Your task to perform on an android device: Go to sound settings Image 0: 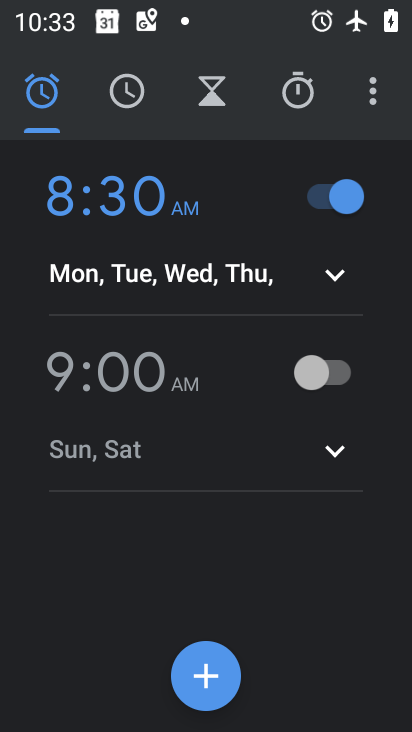
Step 0: press home button
Your task to perform on an android device: Go to sound settings Image 1: 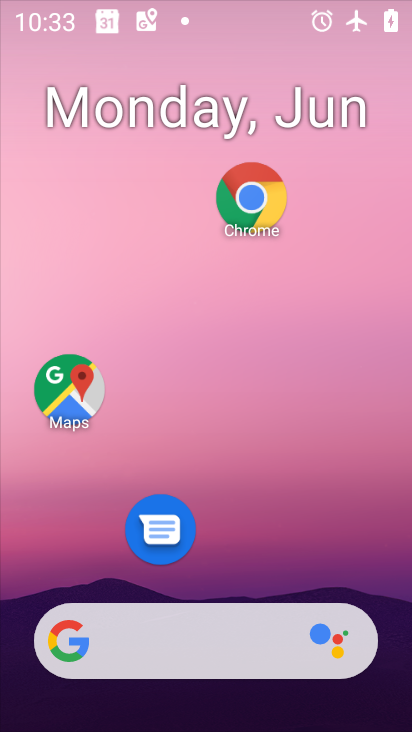
Step 1: drag from (211, 563) to (202, 190)
Your task to perform on an android device: Go to sound settings Image 2: 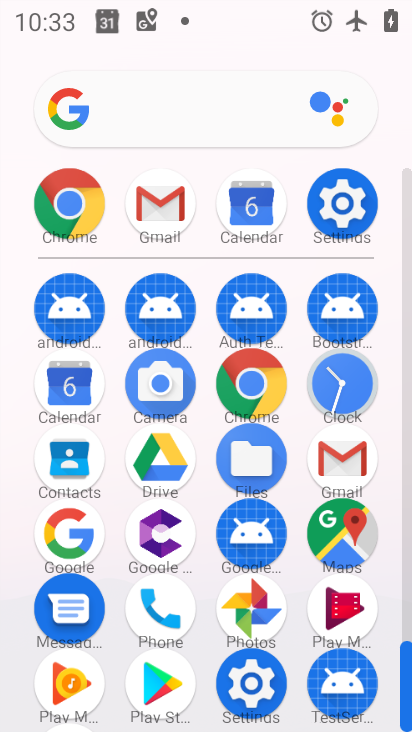
Step 2: click (334, 215)
Your task to perform on an android device: Go to sound settings Image 3: 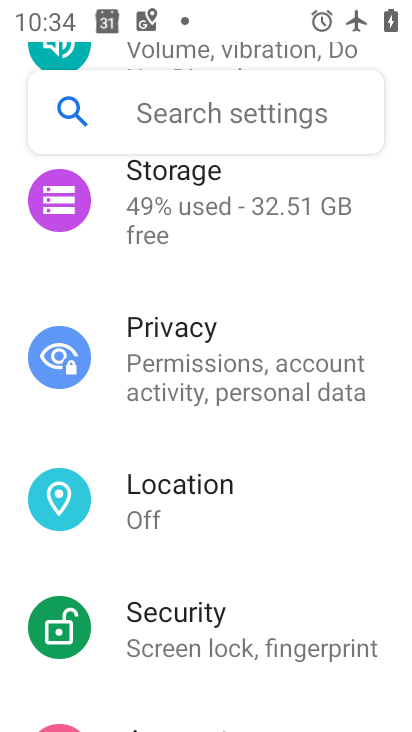
Step 3: drag from (201, 238) to (199, 577)
Your task to perform on an android device: Go to sound settings Image 4: 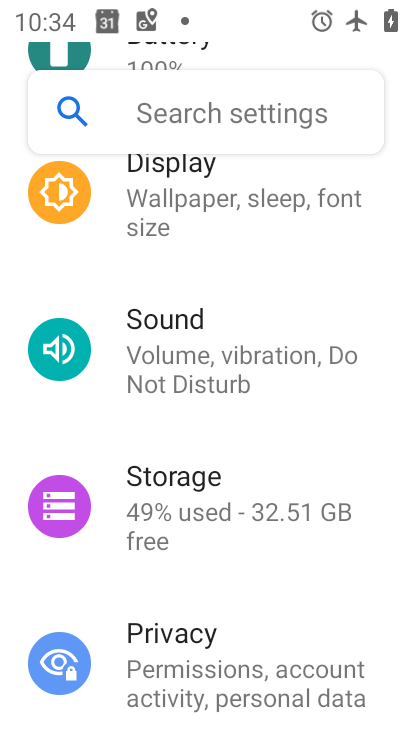
Step 4: click (199, 342)
Your task to perform on an android device: Go to sound settings Image 5: 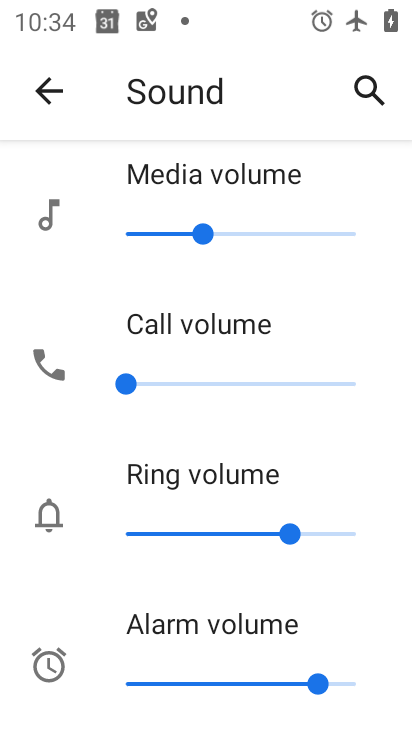
Step 5: task complete